Your task to perform on an android device: Go to eBay Image 0: 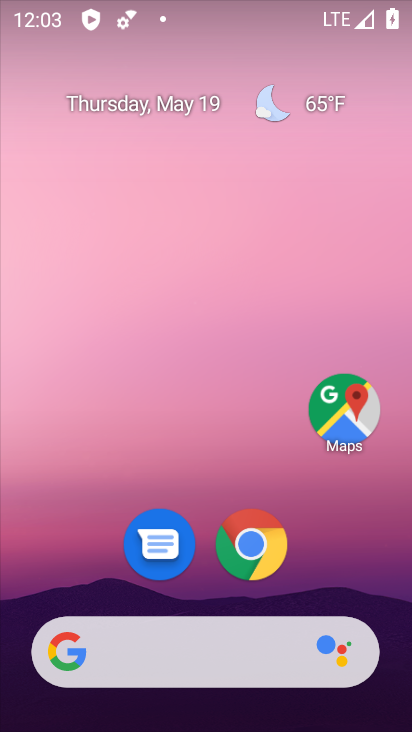
Step 0: drag from (336, 551) to (321, 102)
Your task to perform on an android device: Go to eBay Image 1: 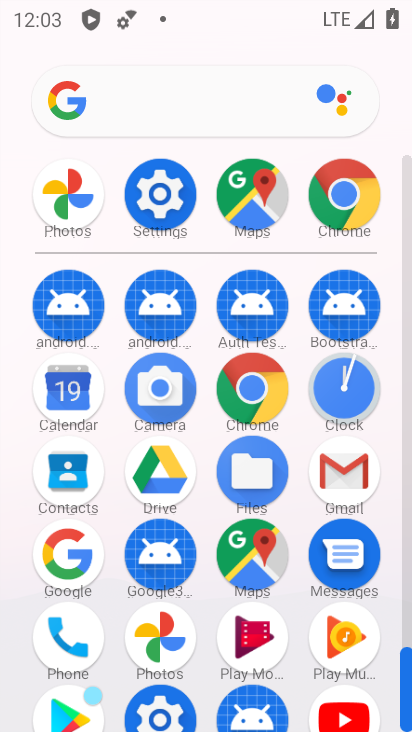
Step 1: click (251, 400)
Your task to perform on an android device: Go to eBay Image 2: 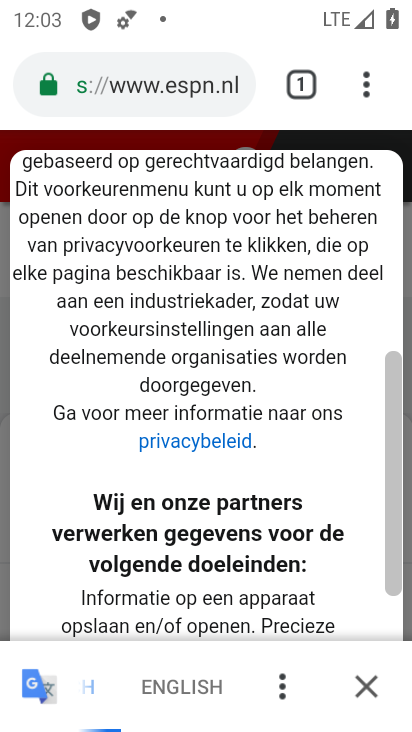
Step 2: press back button
Your task to perform on an android device: Go to eBay Image 3: 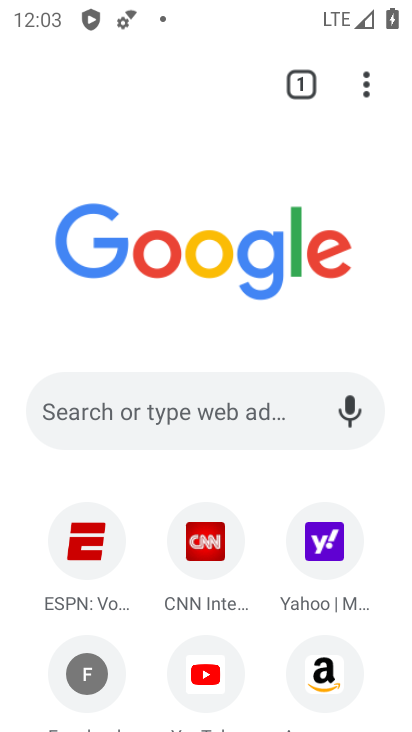
Step 3: drag from (384, 563) to (380, 335)
Your task to perform on an android device: Go to eBay Image 4: 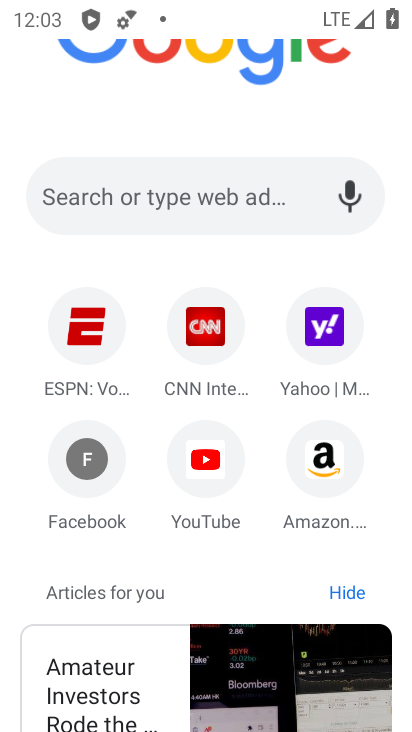
Step 4: click (242, 207)
Your task to perform on an android device: Go to eBay Image 5: 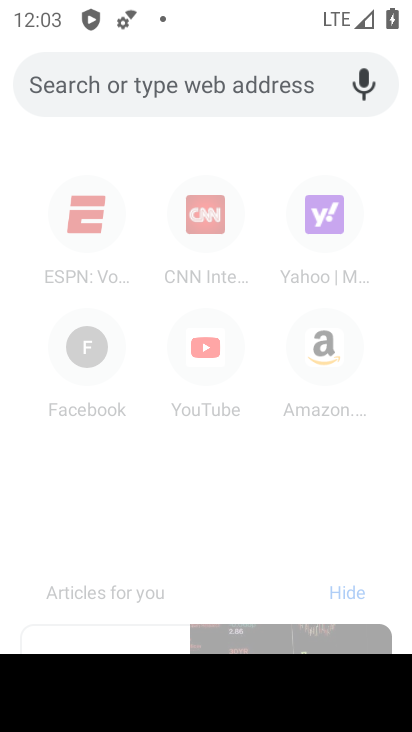
Step 5: type "ebay"
Your task to perform on an android device: Go to eBay Image 6: 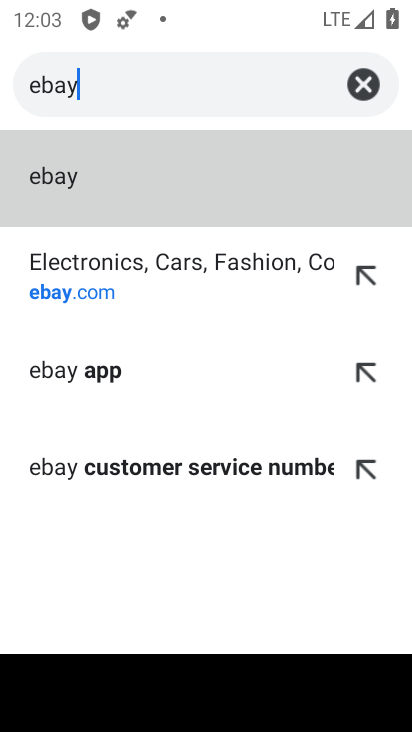
Step 6: click (170, 198)
Your task to perform on an android device: Go to eBay Image 7: 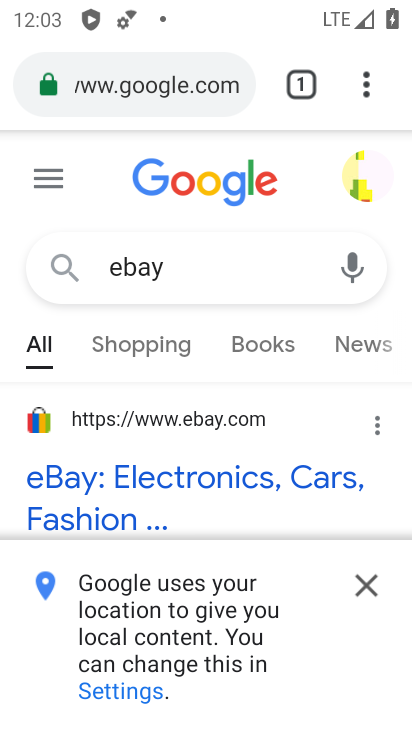
Step 7: task complete